Your task to perform on an android device: Open wifi settings Image 0: 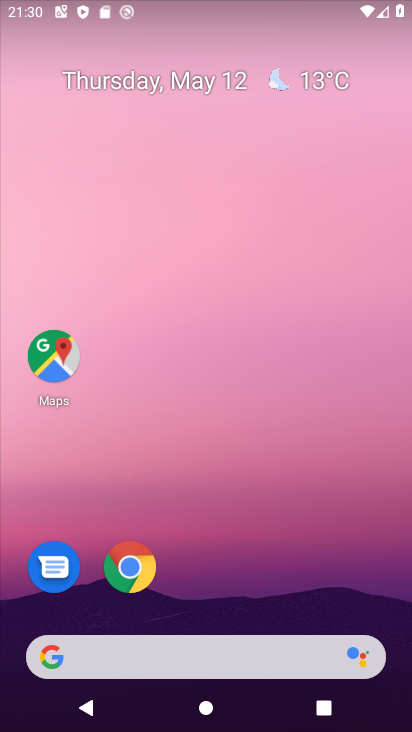
Step 0: press home button
Your task to perform on an android device: Open wifi settings Image 1: 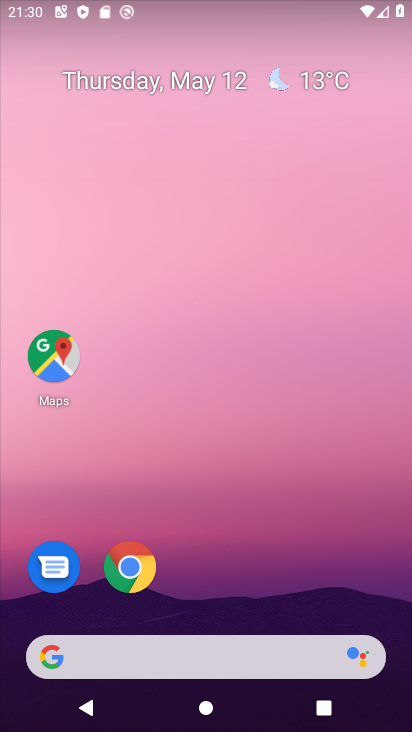
Step 1: drag from (235, 606) to (230, 110)
Your task to perform on an android device: Open wifi settings Image 2: 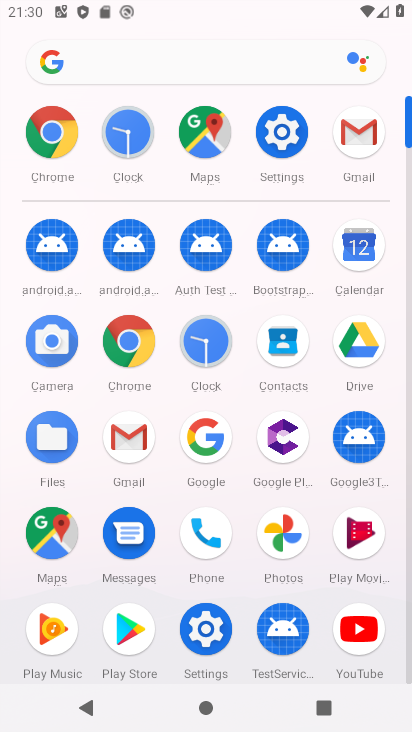
Step 2: click (278, 128)
Your task to perform on an android device: Open wifi settings Image 3: 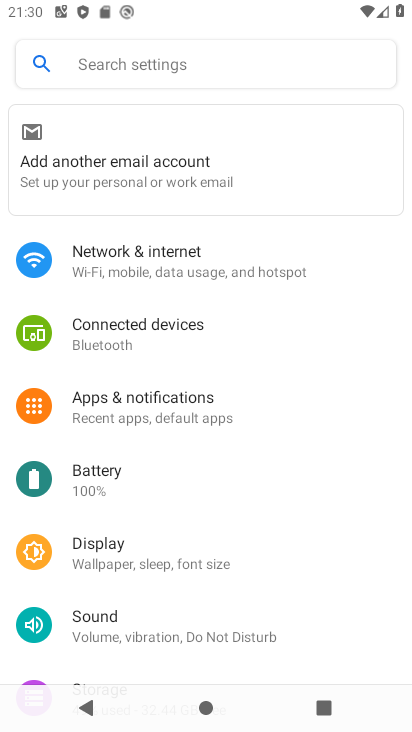
Step 3: click (220, 245)
Your task to perform on an android device: Open wifi settings Image 4: 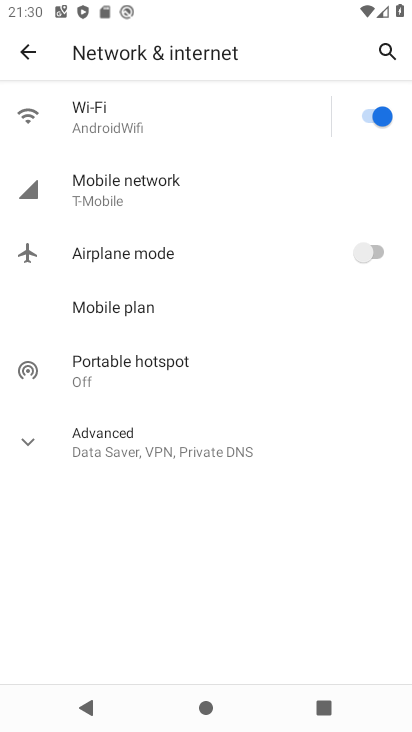
Step 4: click (188, 119)
Your task to perform on an android device: Open wifi settings Image 5: 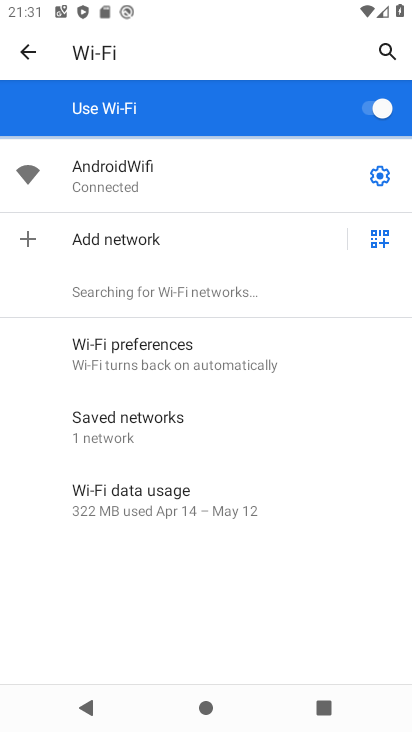
Step 5: task complete